Your task to perform on an android device: change notification settings in the gmail app Image 0: 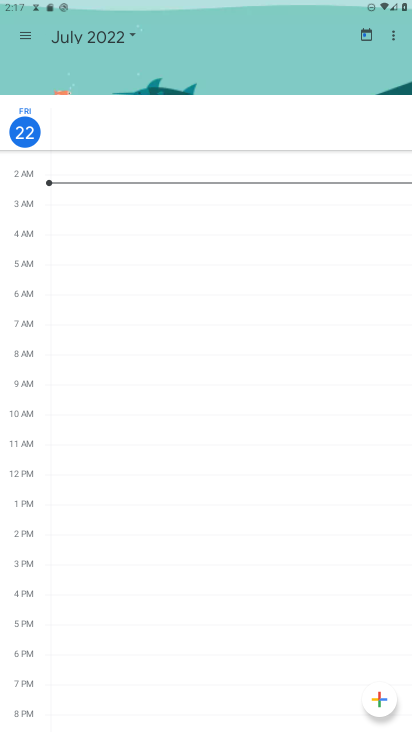
Step 0: press home button
Your task to perform on an android device: change notification settings in the gmail app Image 1: 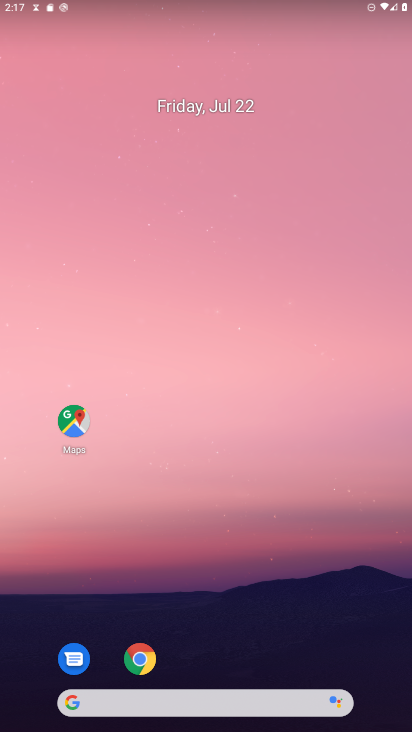
Step 1: drag from (278, 619) to (300, 117)
Your task to perform on an android device: change notification settings in the gmail app Image 2: 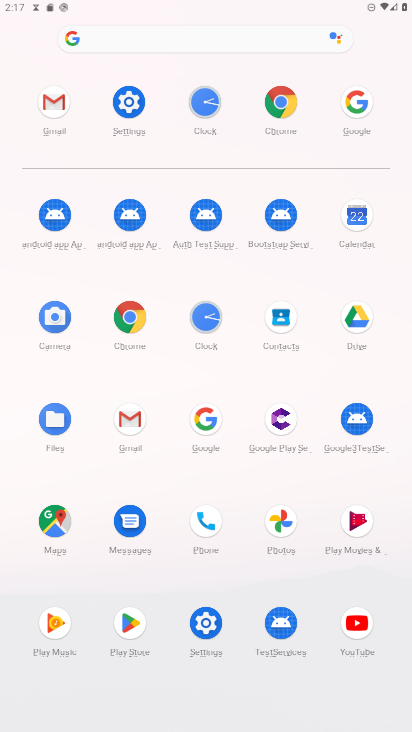
Step 2: click (64, 108)
Your task to perform on an android device: change notification settings in the gmail app Image 3: 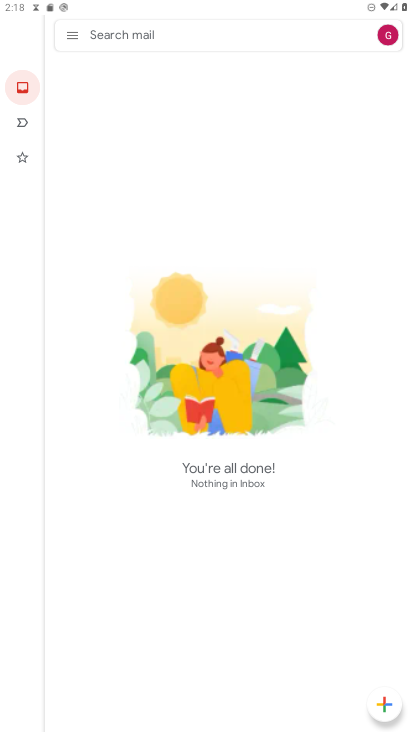
Step 3: click (78, 47)
Your task to perform on an android device: change notification settings in the gmail app Image 4: 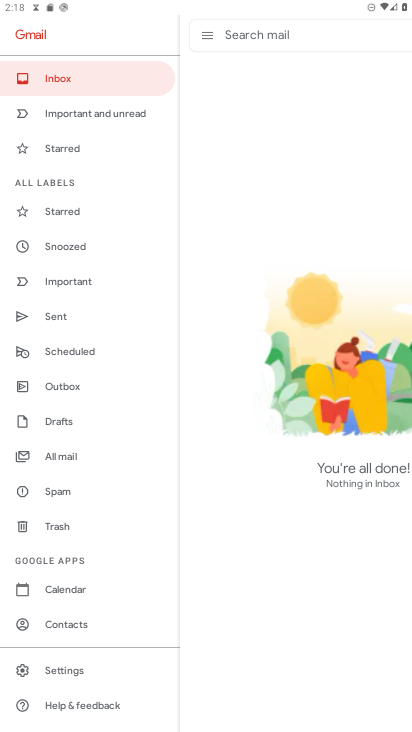
Step 4: click (74, 671)
Your task to perform on an android device: change notification settings in the gmail app Image 5: 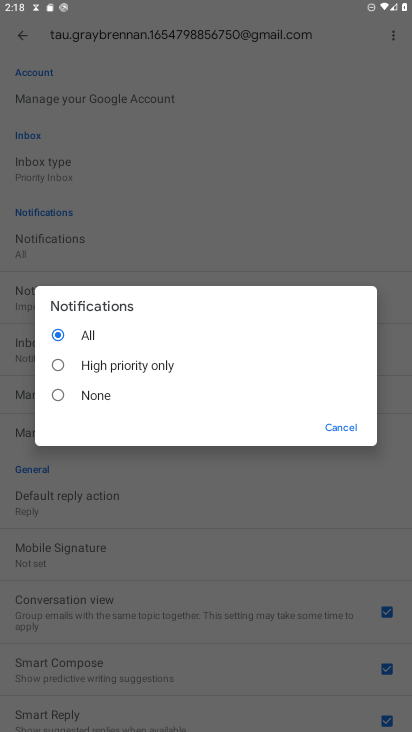
Step 5: click (100, 363)
Your task to perform on an android device: change notification settings in the gmail app Image 6: 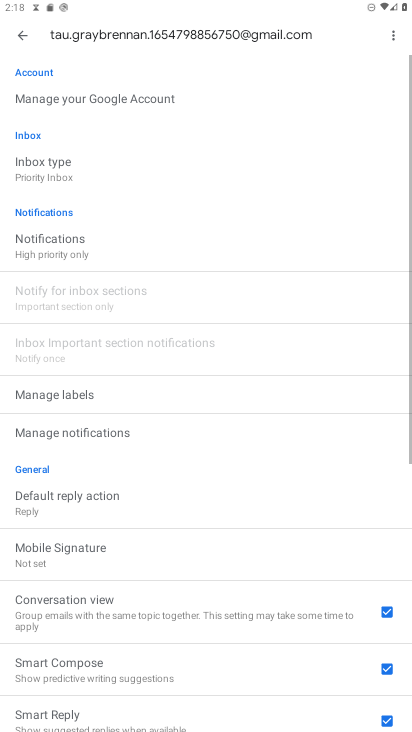
Step 6: task complete